Your task to perform on an android device: Go to Yahoo.com Image 0: 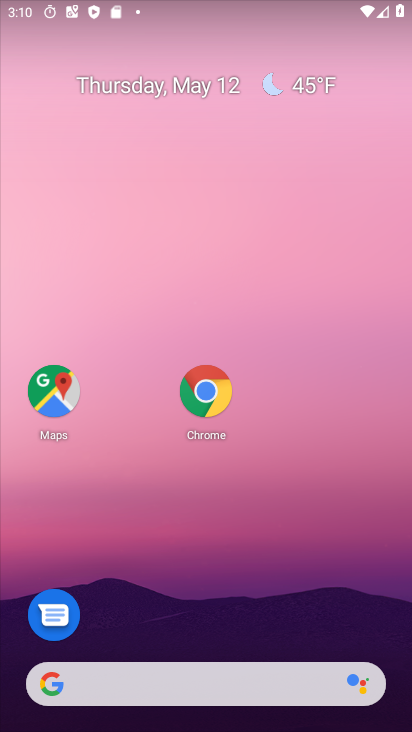
Step 0: click (214, 394)
Your task to perform on an android device: Go to Yahoo.com Image 1: 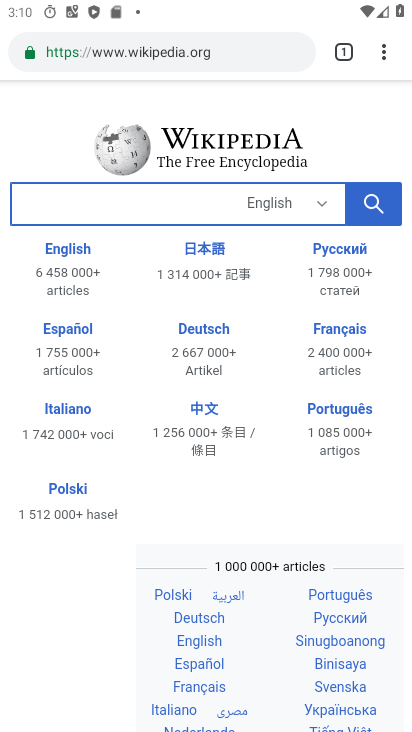
Step 1: task complete